Your task to perform on an android device: Open eBay Image 0: 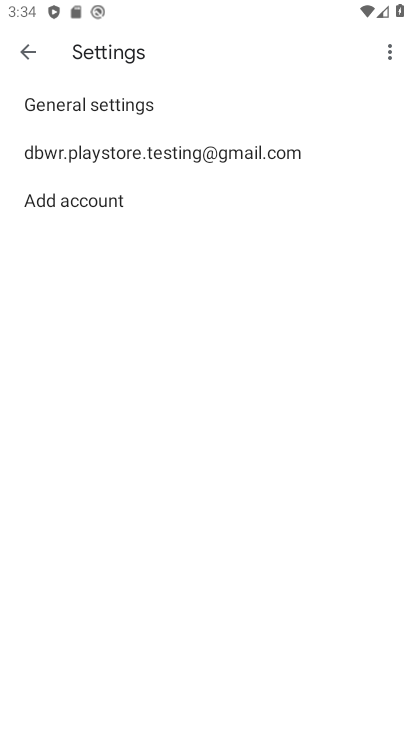
Step 0: press home button
Your task to perform on an android device: Open eBay Image 1: 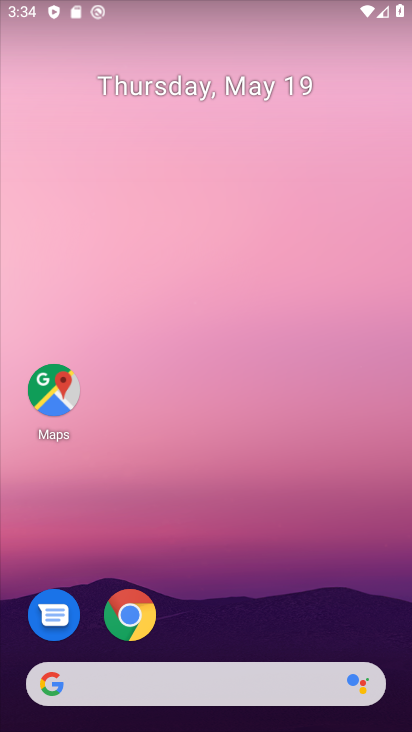
Step 1: click (131, 617)
Your task to perform on an android device: Open eBay Image 2: 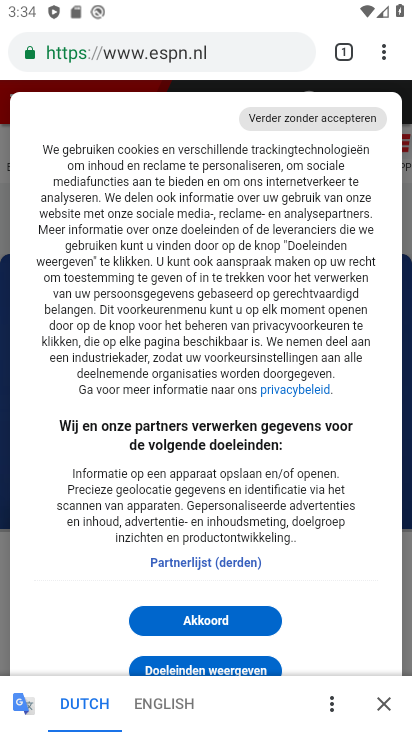
Step 2: click (129, 55)
Your task to perform on an android device: Open eBay Image 3: 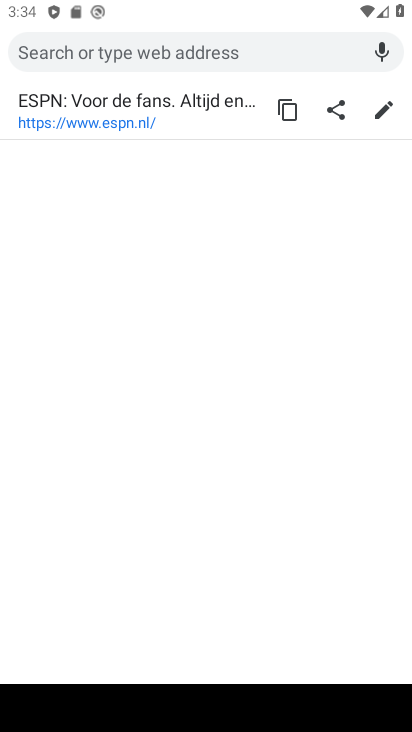
Step 3: type "ebay"
Your task to perform on an android device: Open eBay Image 4: 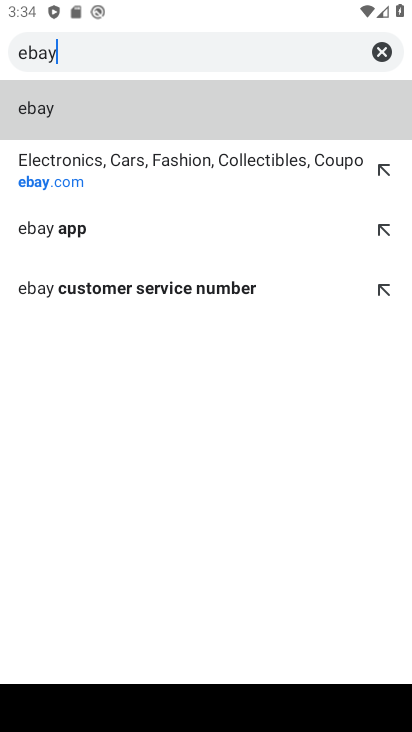
Step 4: click (46, 178)
Your task to perform on an android device: Open eBay Image 5: 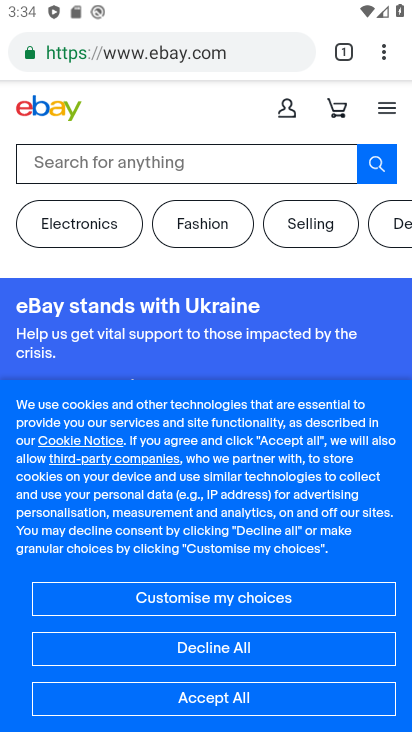
Step 5: task complete